Your task to perform on an android device: turn on wifi Image 0: 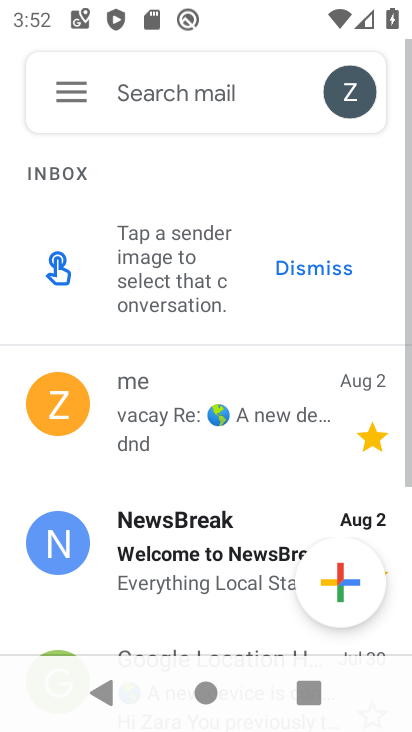
Step 0: press home button
Your task to perform on an android device: turn on wifi Image 1: 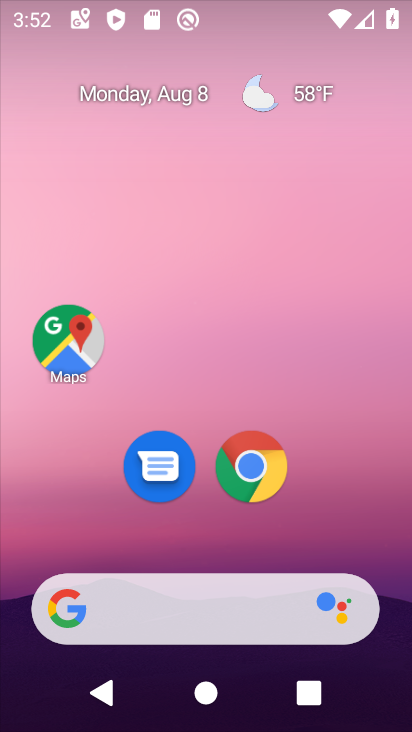
Step 1: drag from (212, 564) to (226, 136)
Your task to perform on an android device: turn on wifi Image 2: 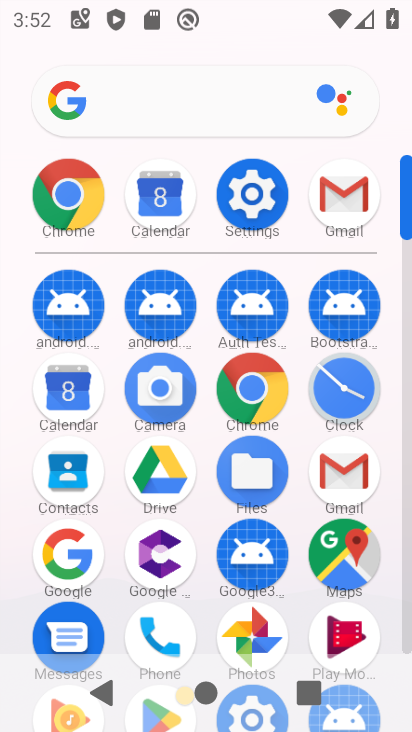
Step 2: click (215, 195)
Your task to perform on an android device: turn on wifi Image 3: 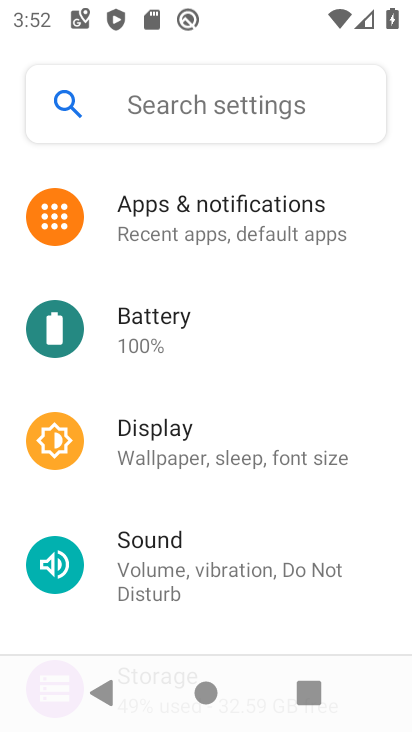
Step 3: drag from (215, 206) to (221, 607)
Your task to perform on an android device: turn on wifi Image 4: 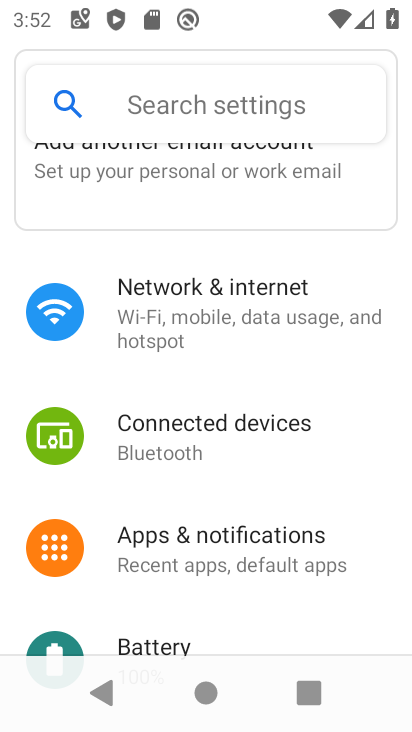
Step 4: click (201, 289)
Your task to perform on an android device: turn on wifi Image 5: 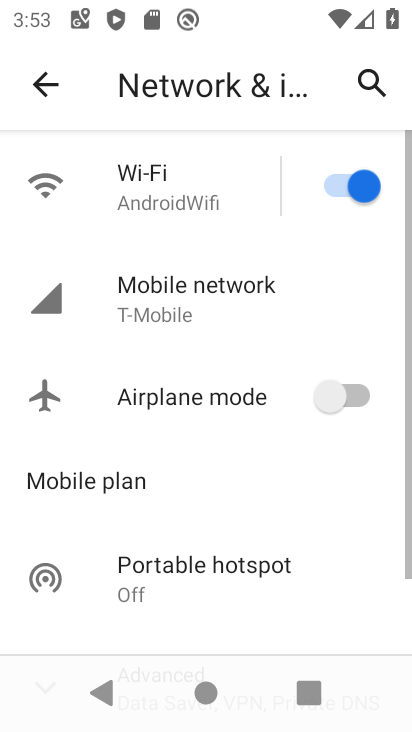
Step 5: click (202, 186)
Your task to perform on an android device: turn on wifi Image 6: 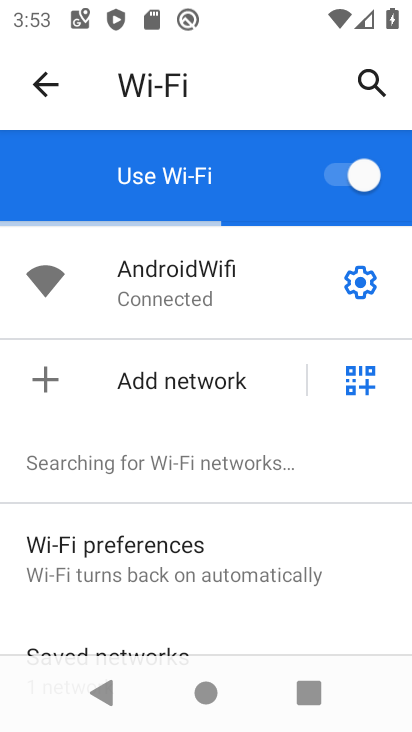
Step 6: task complete